Your task to perform on an android device: Clear the shopping cart on amazon. Add dell xps to the cart on amazon, then select checkout. Image 0: 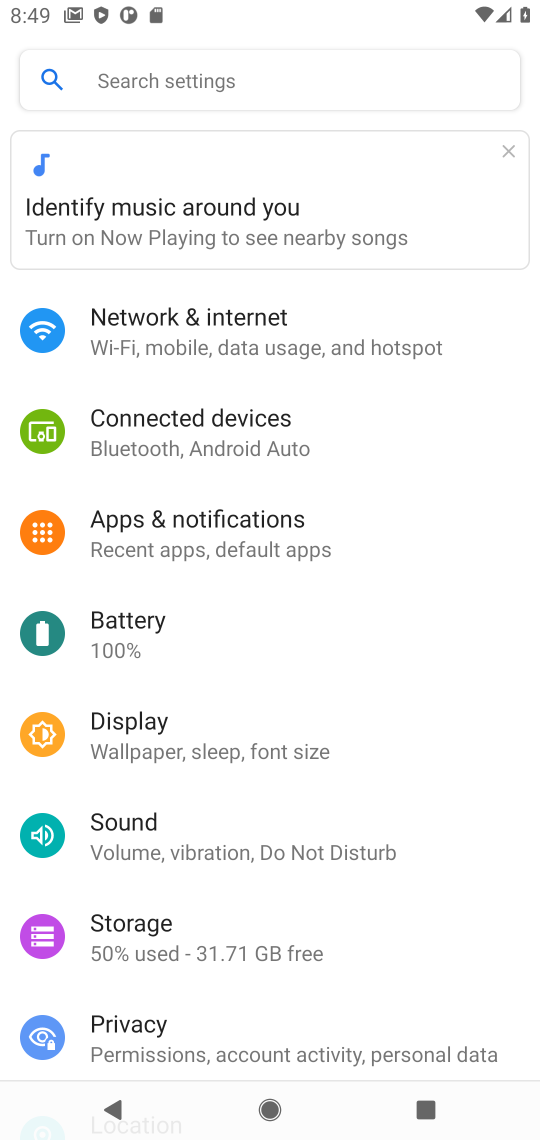
Step 0: press home button
Your task to perform on an android device: Clear the shopping cart on amazon. Add dell xps to the cart on amazon, then select checkout. Image 1: 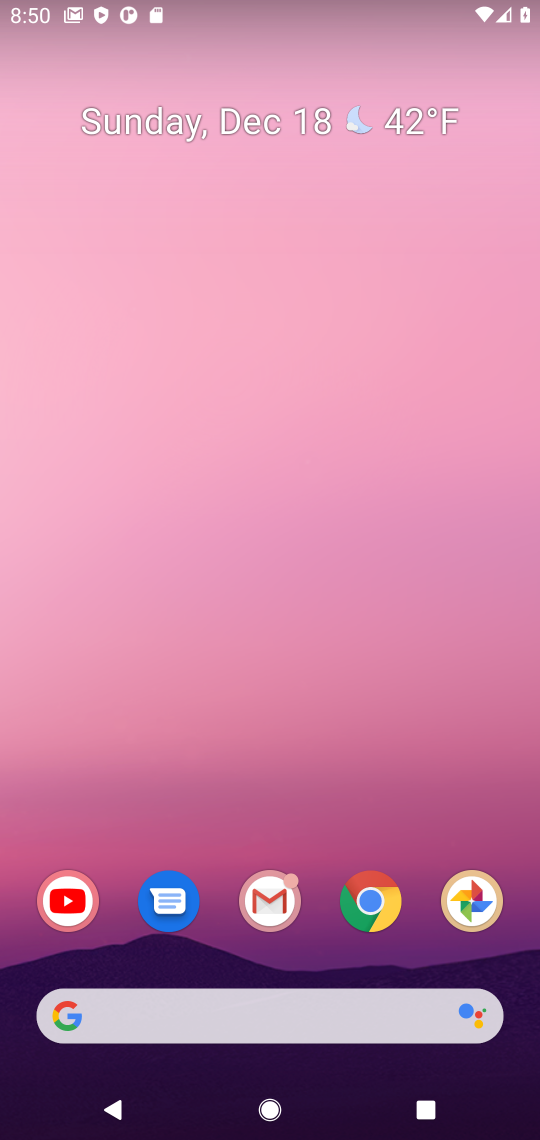
Step 1: click (378, 899)
Your task to perform on an android device: Clear the shopping cart on amazon. Add dell xps to the cart on amazon, then select checkout. Image 2: 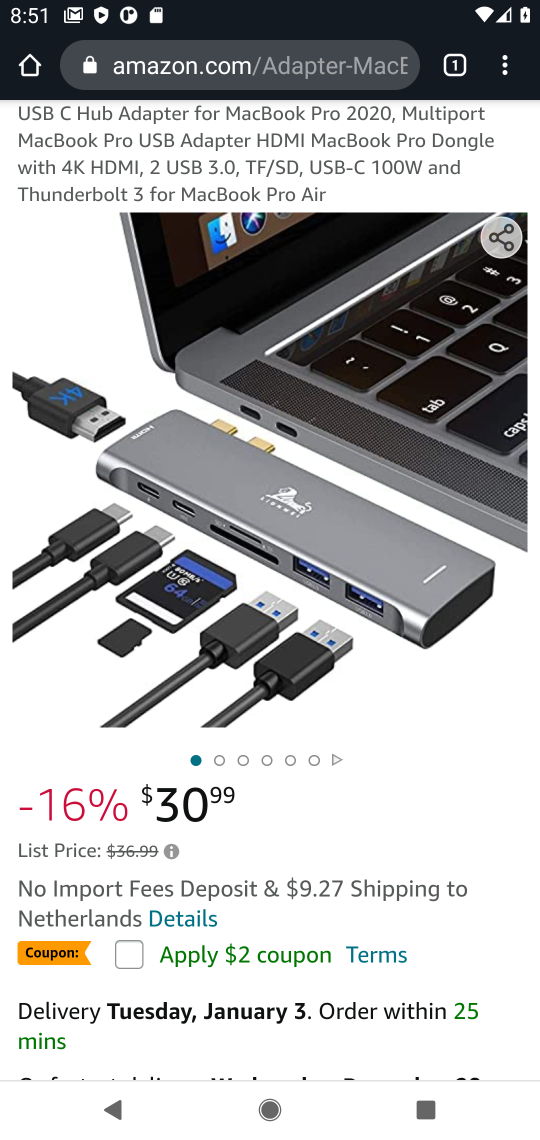
Step 2: task complete